Your task to perform on an android device: Add "razer huntsman" to the cart on newegg.com, then select checkout. Image 0: 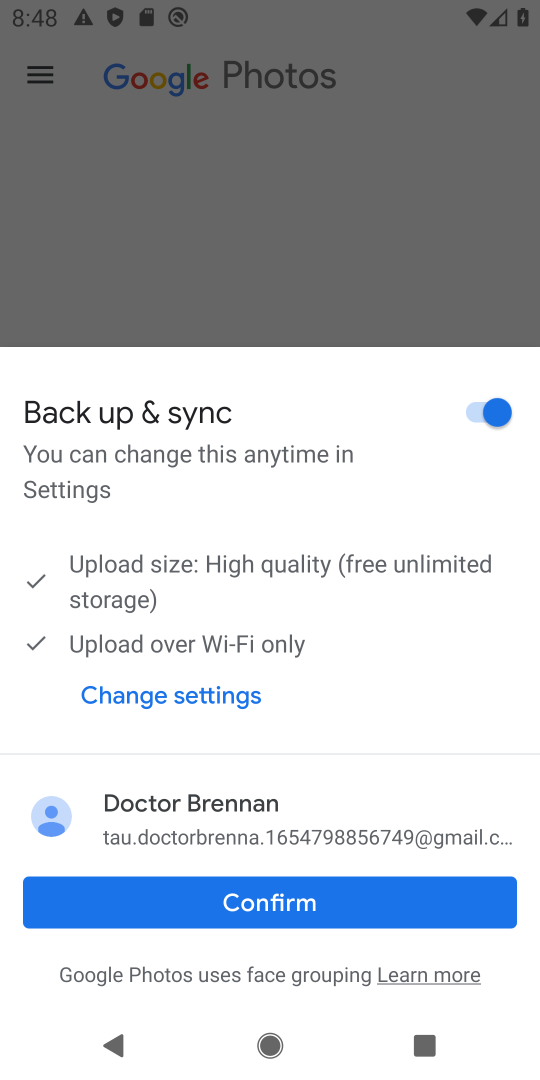
Step 0: task complete